Your task to perform on an android device: search for starred emails in the gmail app Image 0: 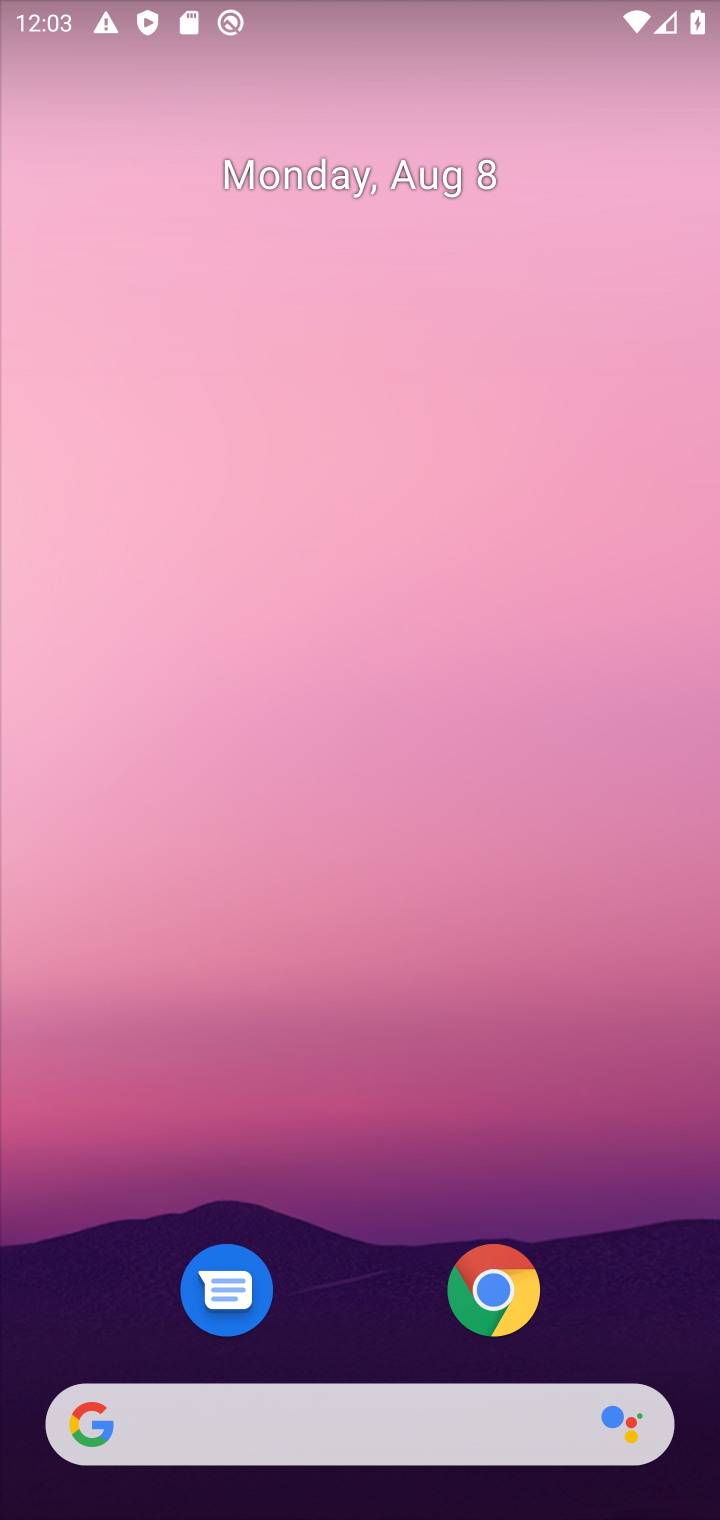
Step 0: drag from (380, 1102) to (469, 352)
Your task to perform on an android device: search for starred emails in the gmail app Image 1: 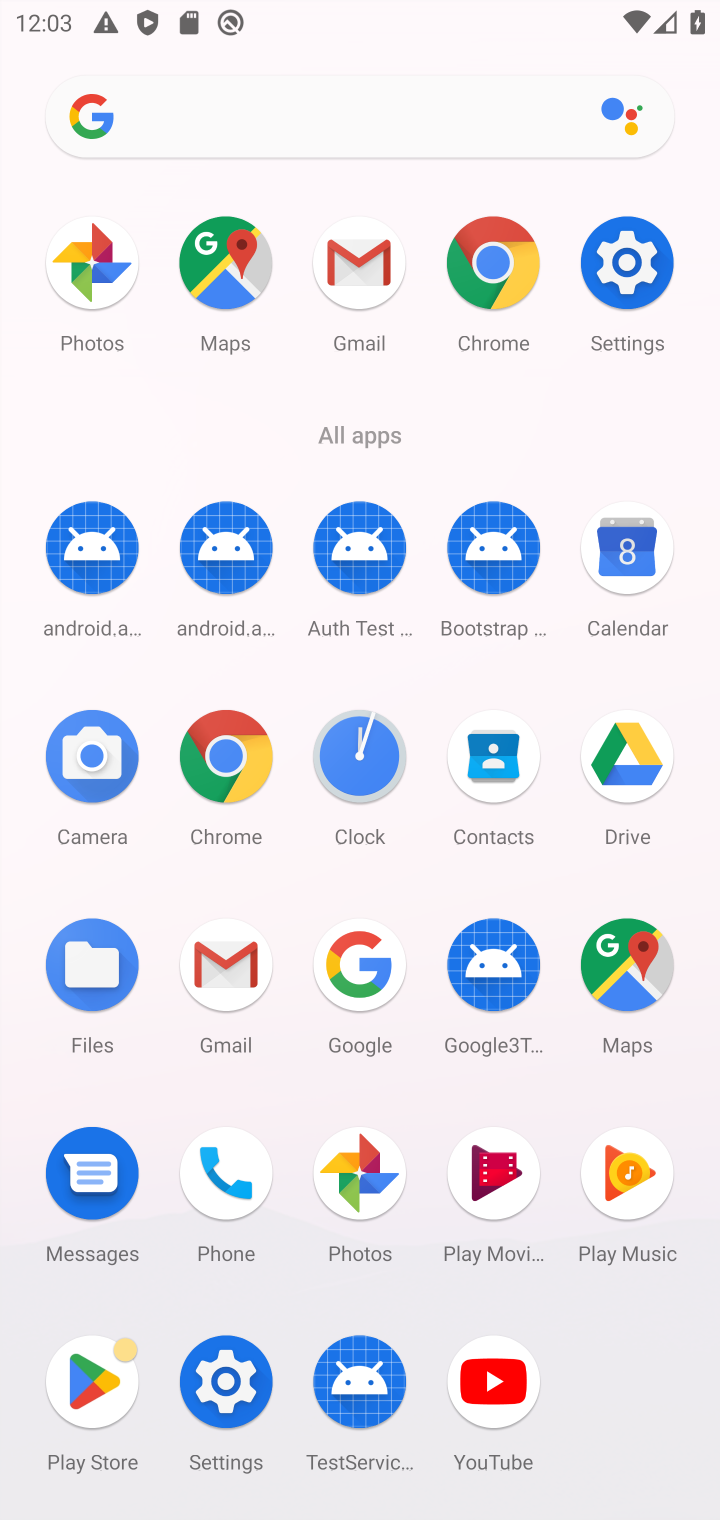
Step 1: click (214, 981)
Your task to perform on an android device: search for starred emails in the gmail app Image 2: 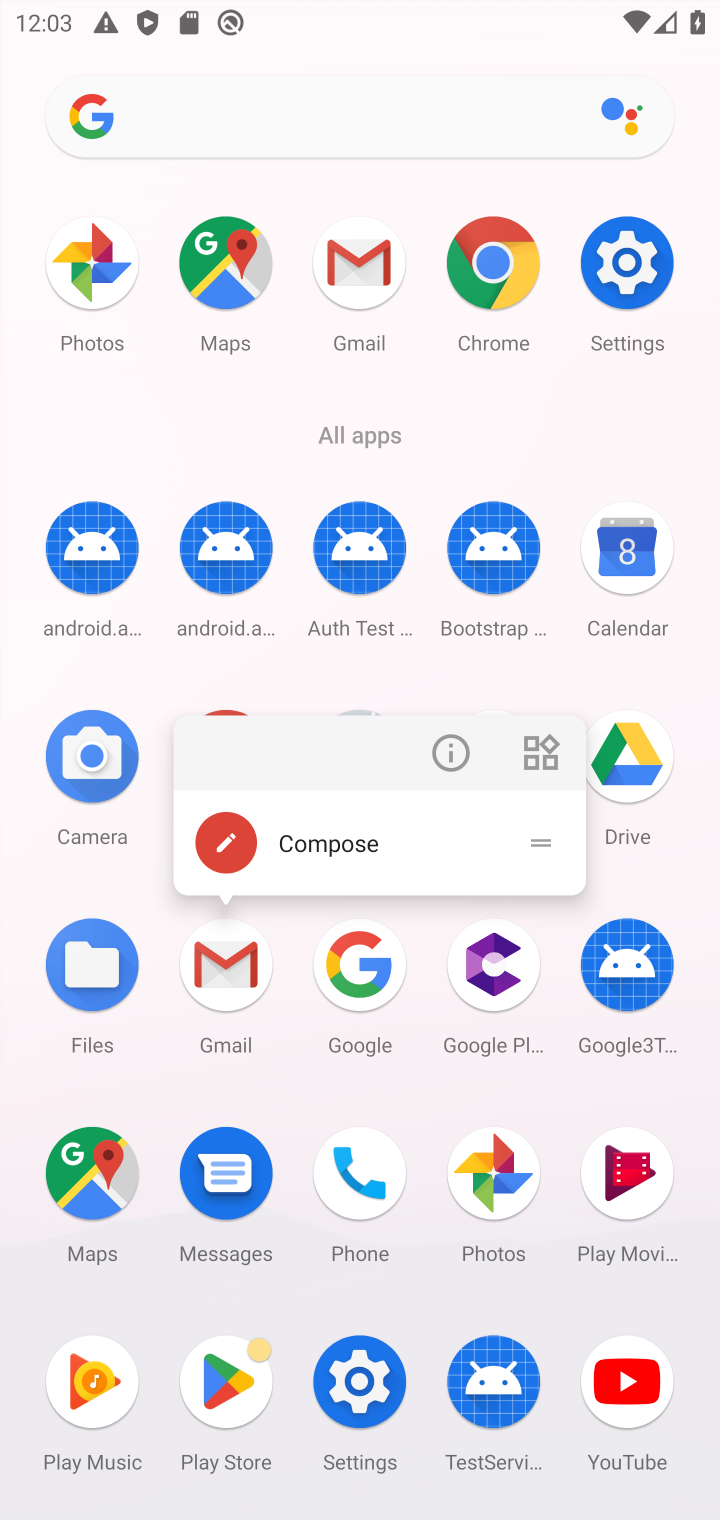
Step 2: click (227, 989)
Your task to perform on an android device: search for starred emails in the gmail app Image 3: 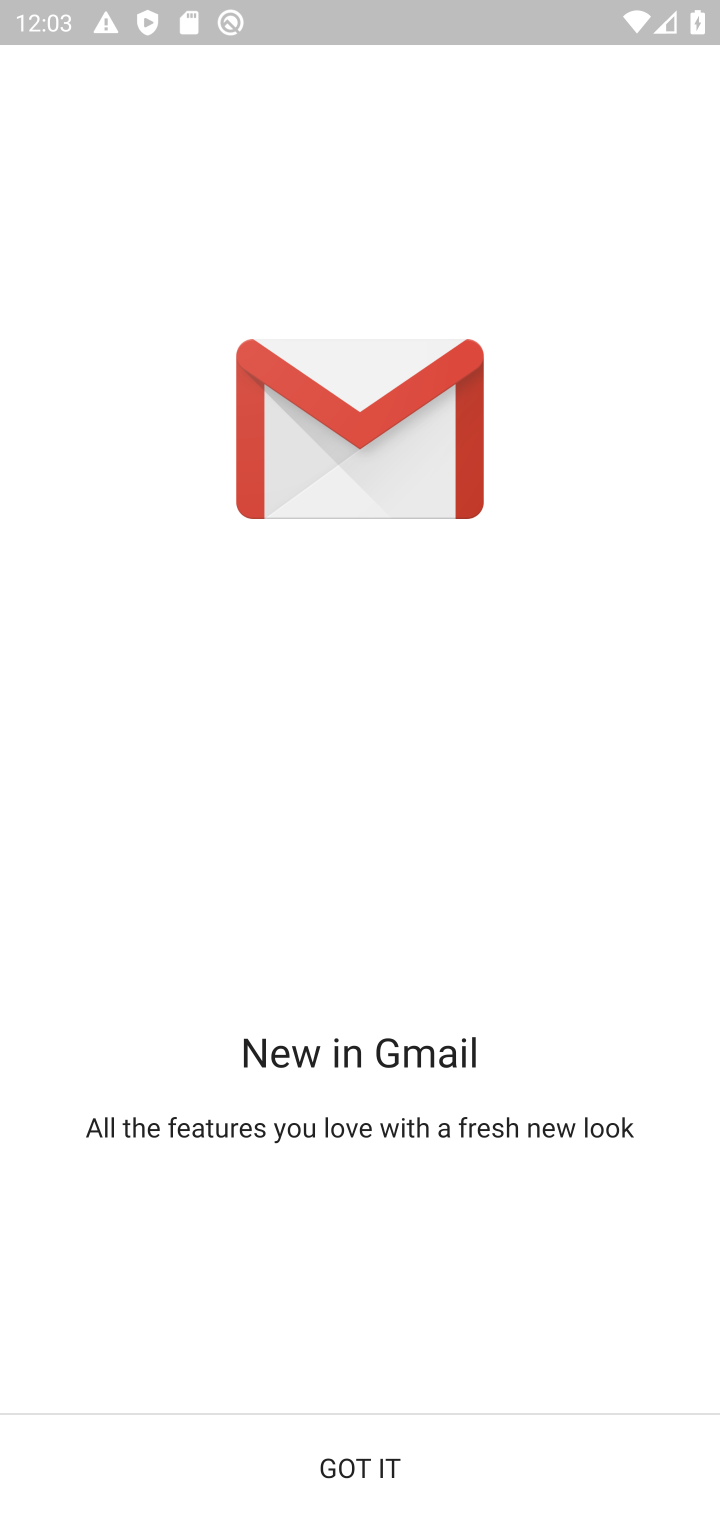
Step 3: click (410, 1482)
Your task to perform on an android device: search for starred emails in the gmail app Image 4: 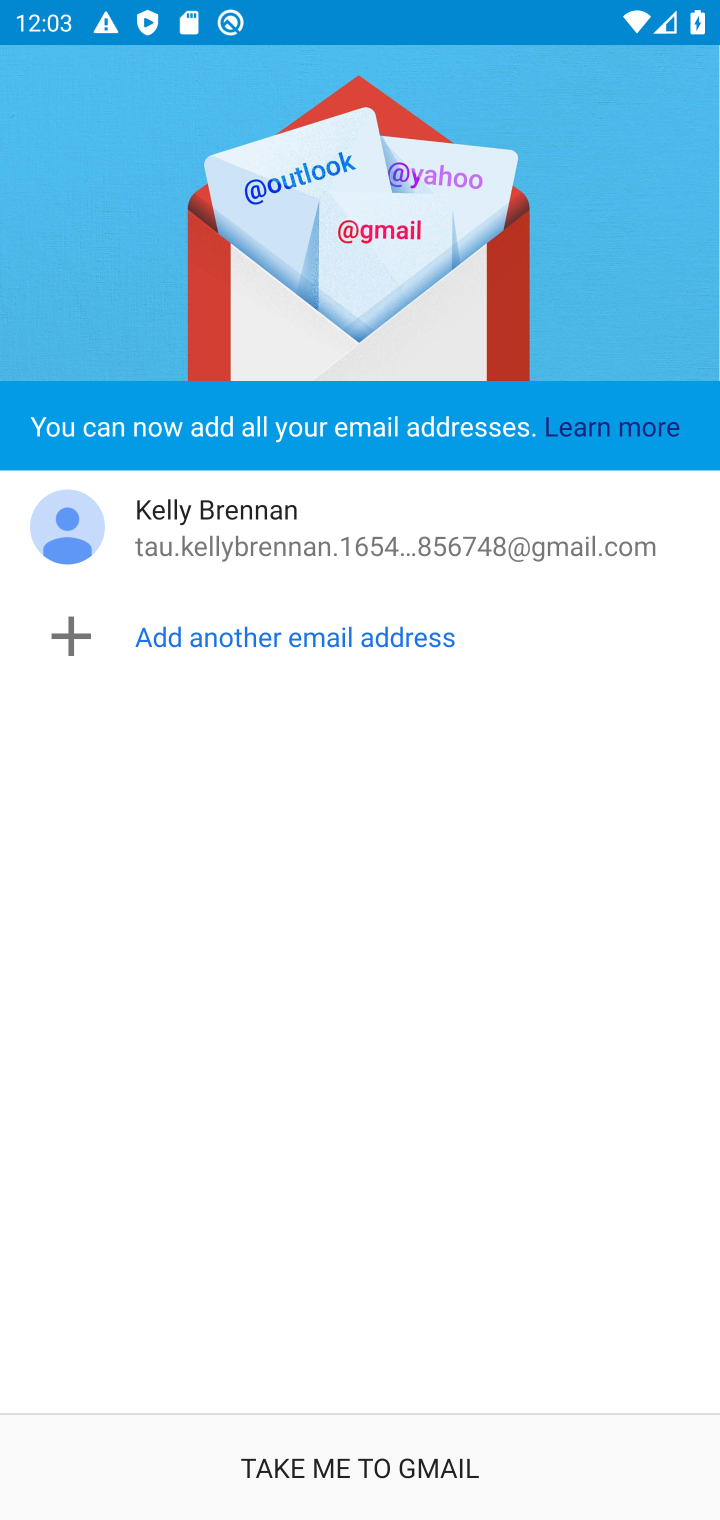
Step 4: click (385, 1472)
Your task to perform on an android device: search for starred emails in the gmail app Image 5: 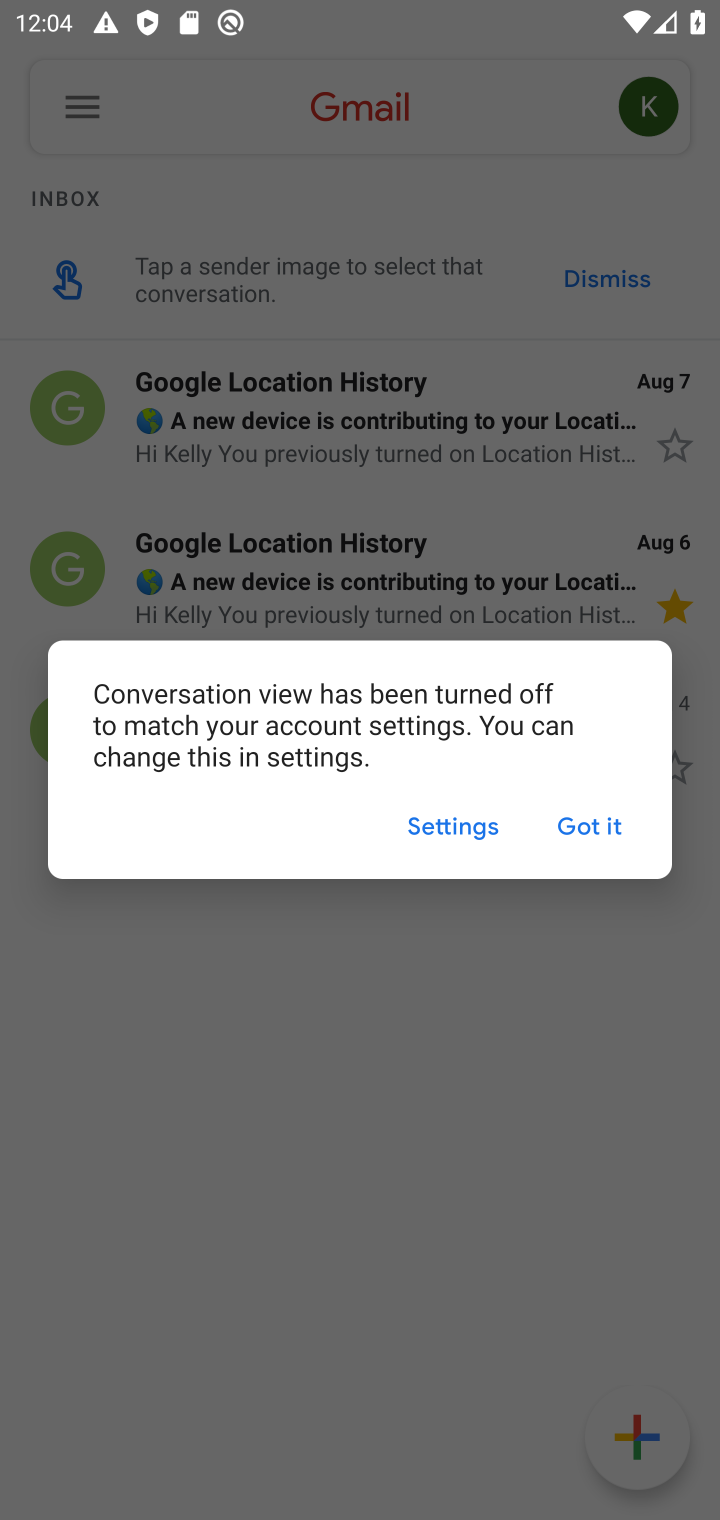
Step 5: click (602, 815)
Your task to perform on an android device: search for starred emails in the gmail app Image 6: 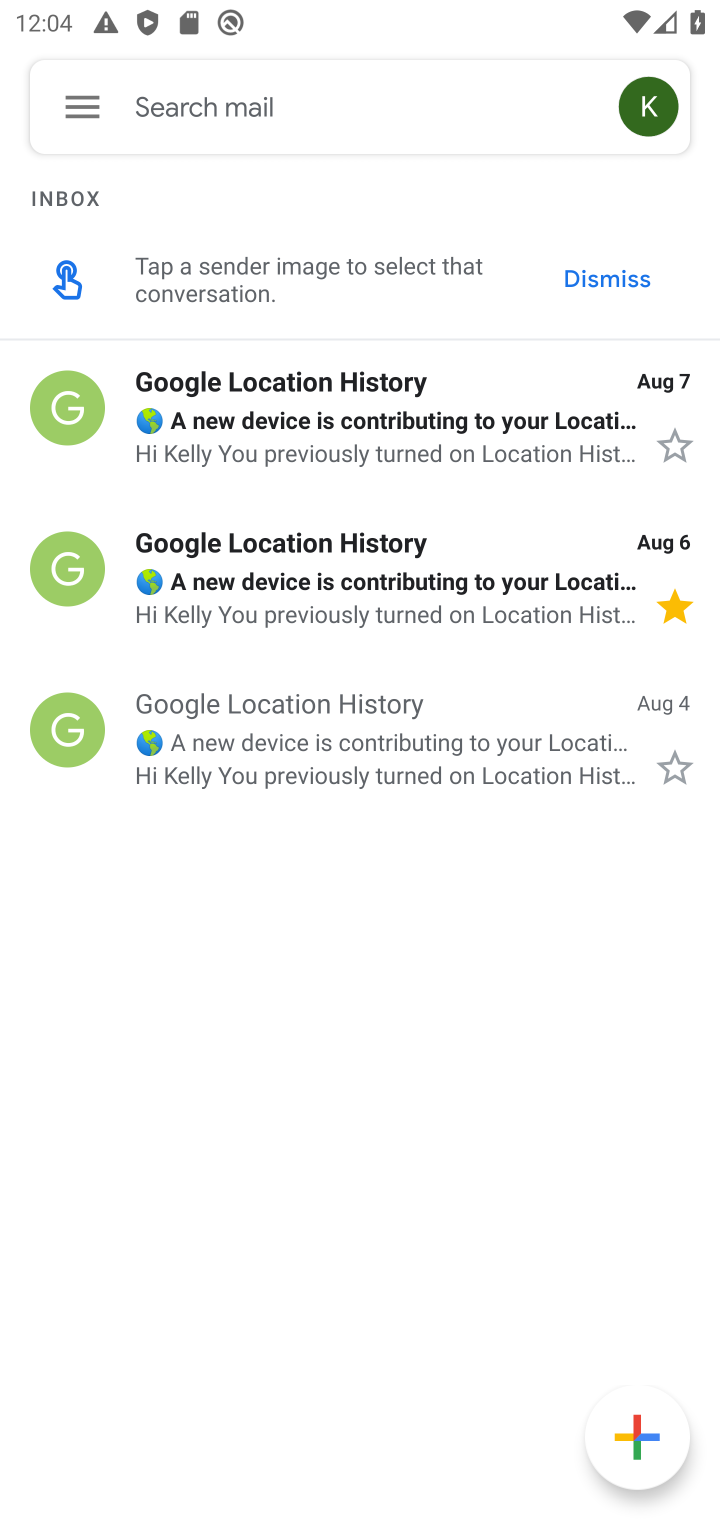
Step 6: click (93, 106)
Your task to perform on an android device: search for starred emails in the gmail app Image 7: 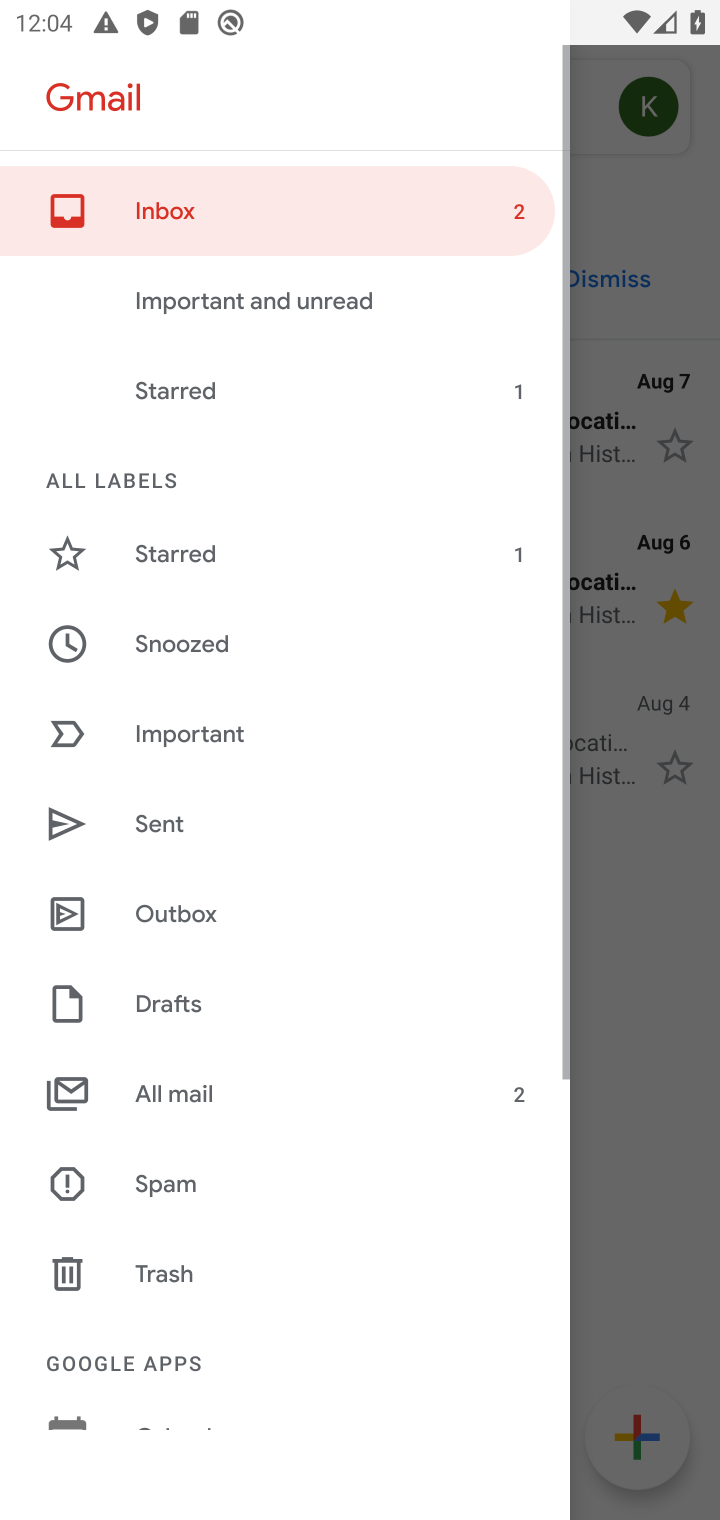
Step 7: click (187, 561)
Your task to perform on an android device: search for starred emails in the gmail app Image 8: 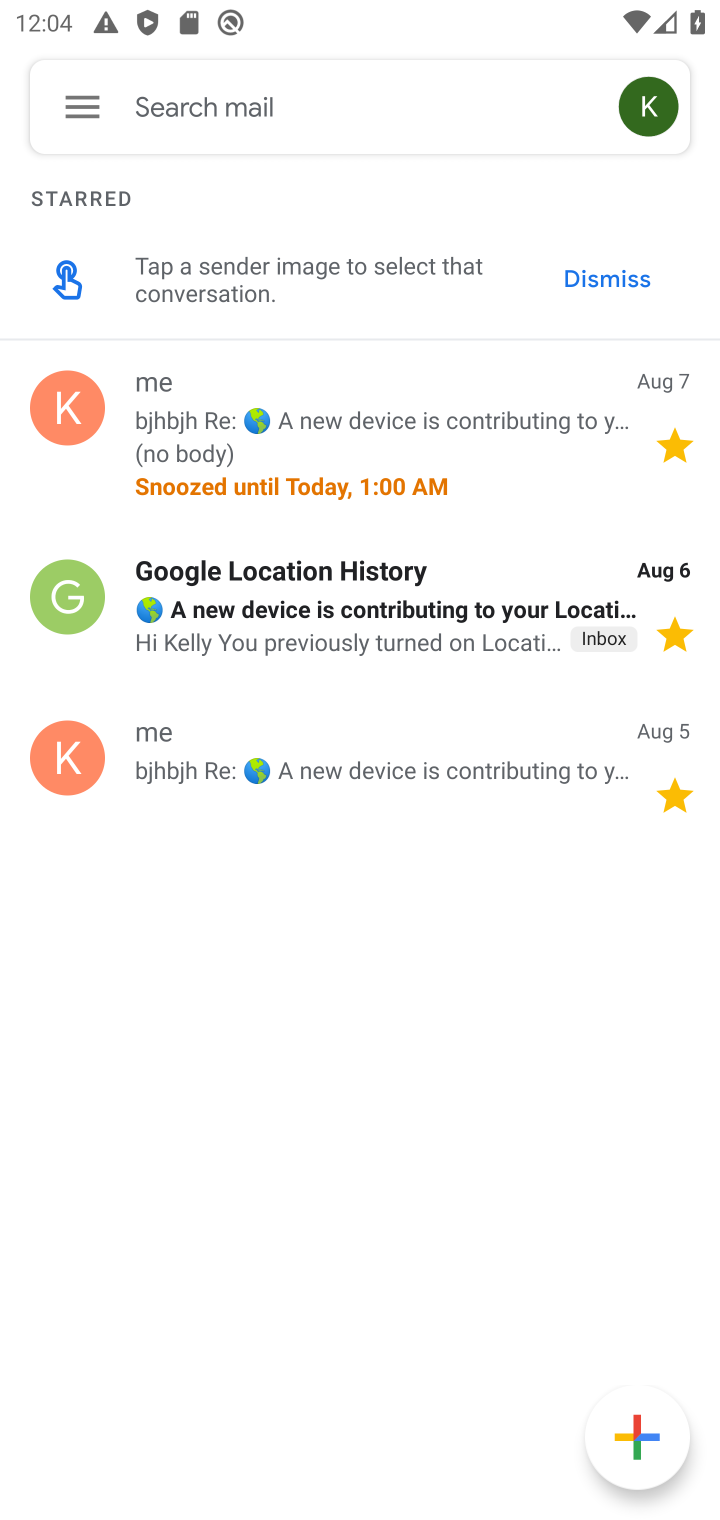
Step 8: task complete